Your task to perform on an android device: Toggle the flashlight Image 0: 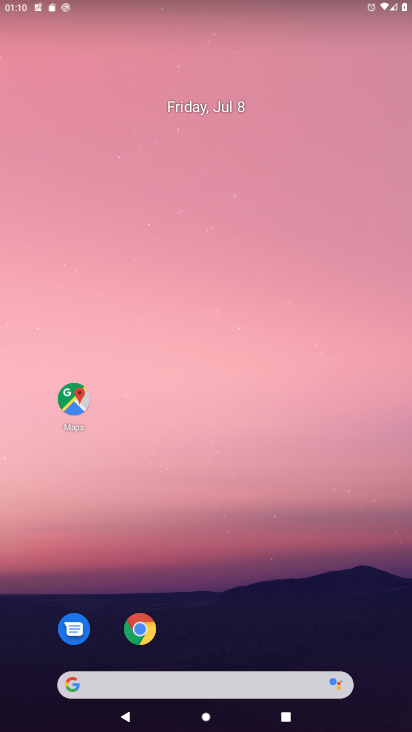
Step 0: drag from (283, 604) to (224, 1)
Your task to perform on an android device: Toggle the flashlight Image 1: 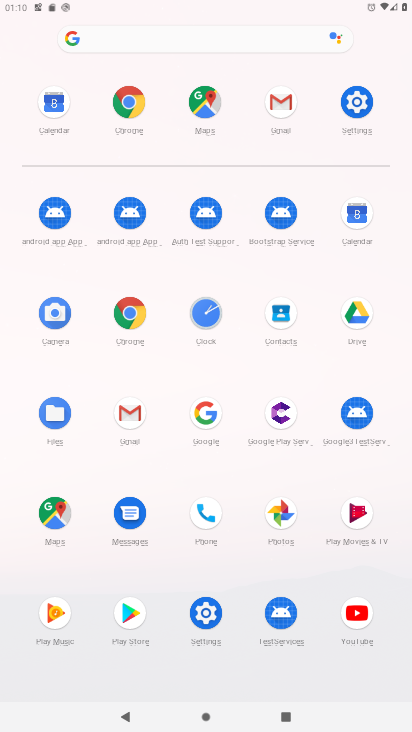
Step 1: click (367, 105)
Your task to perform on an android device: Toggle the flashlight Image 2: 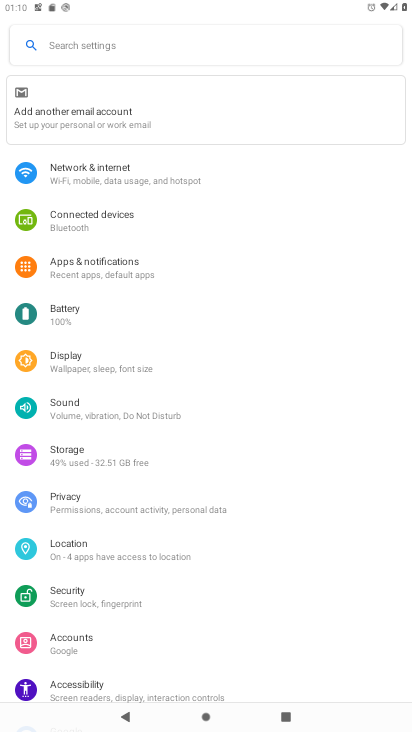
Step 2: task complete